Your task to perform on an android device: What's on my calendar tomorrow? Image 0: 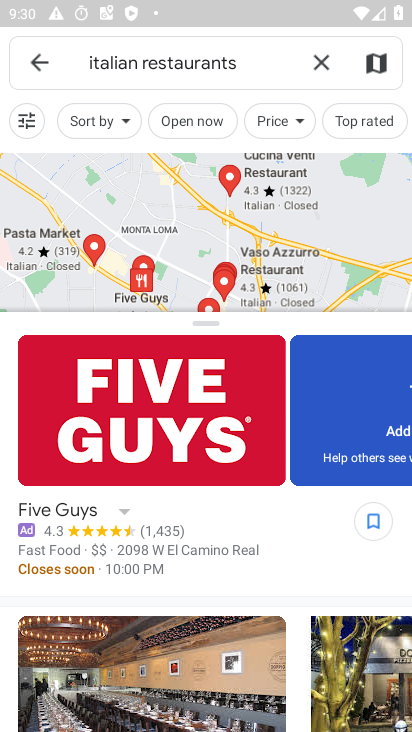
Step 0: press home button
Your task to perform on an android device: What's on my calendar tomorrow? Image 1: 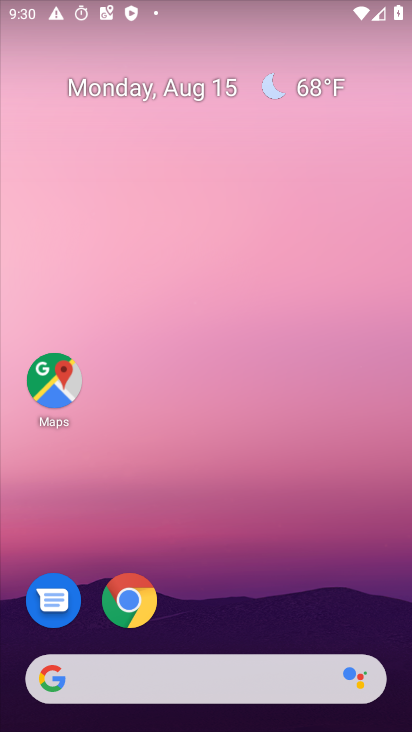
Step 1: drag from (230, 647) to (199, 49)
Your task to perform on an android device: What's on my calendar tomorrow? Image 2: 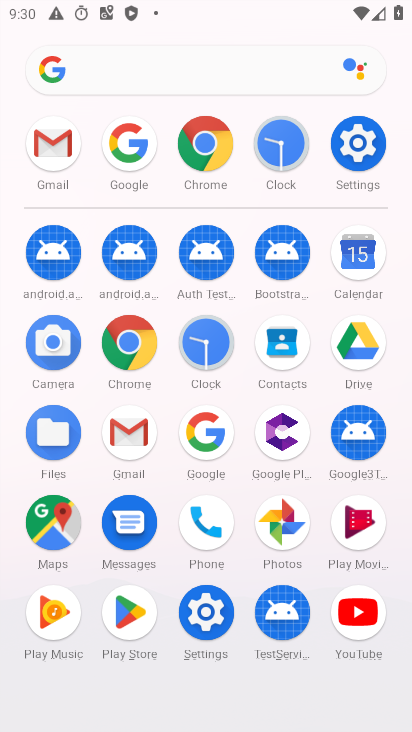
Step 2: click (356, 258)
Your task to perform on an android device: What's on my calendar tomorrow? Image 3: 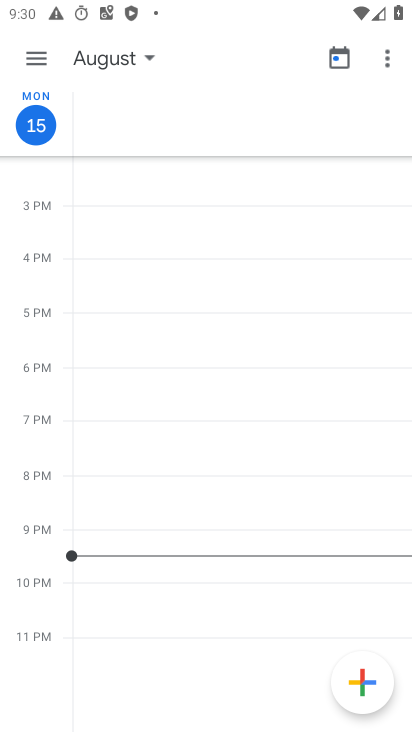
Step 3: click (147, 56)
Your task to perform on an android device: What's on my calendar tomorrow? Image 4: 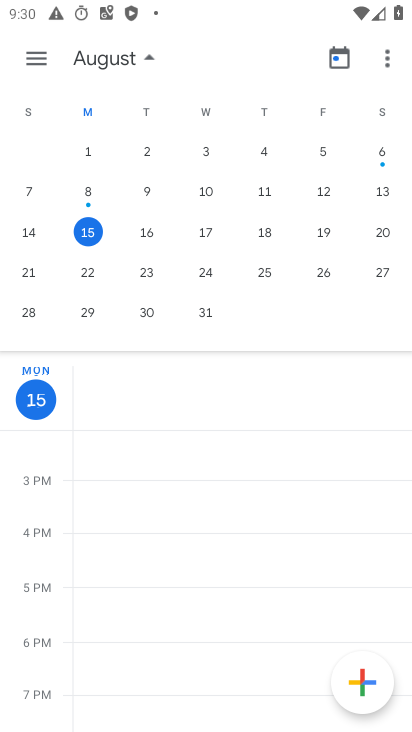
Step 4: click (144, 228)
Your task to perform on an android device: What's on my calendar tomorrow? Image 5: 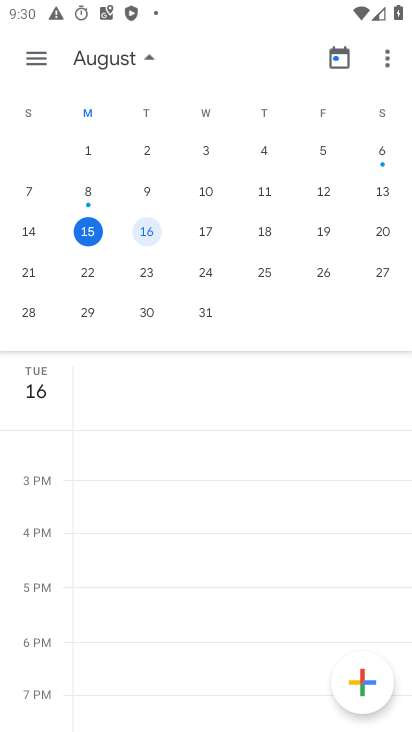
Step 5: click (144, 228)
Your task to perform on an android device: What's on my calendar tomorrow? Image 6: 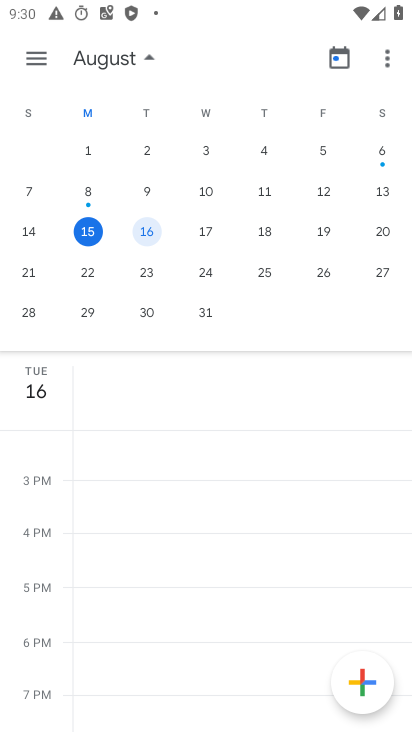
Step 6: click (144, 228)
Your task to perform on an android device: What's on my calendar tomorrow? Image 7: 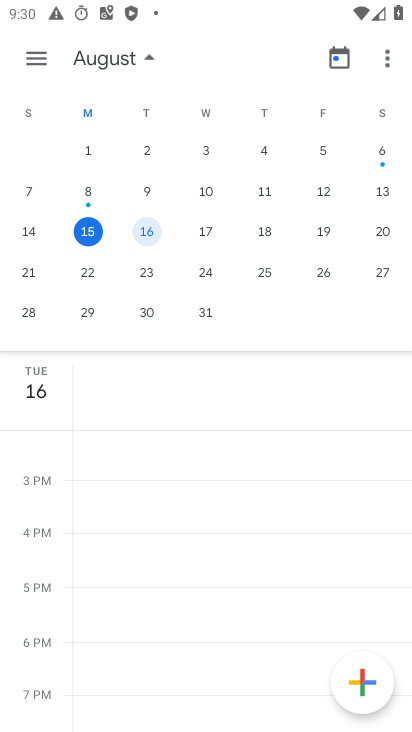
Step 7: click (144, 228)
Your task to perform on an android device: What's on my calendar tomorrow? Image 8: 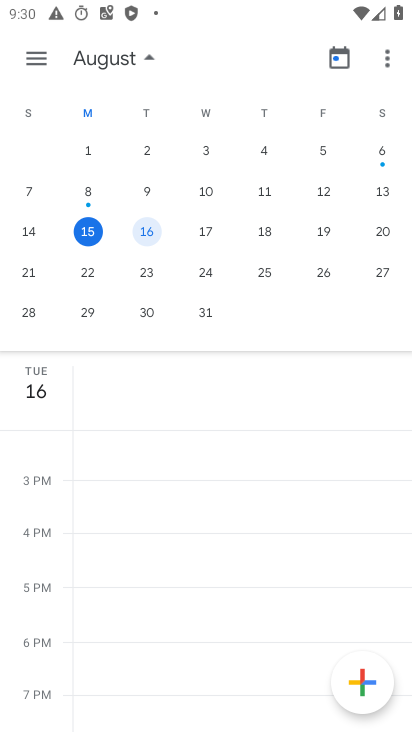
Step 8: click (144, 228)
Your task to perform on an android device: What's on my calendar tomorrow? Image 9: 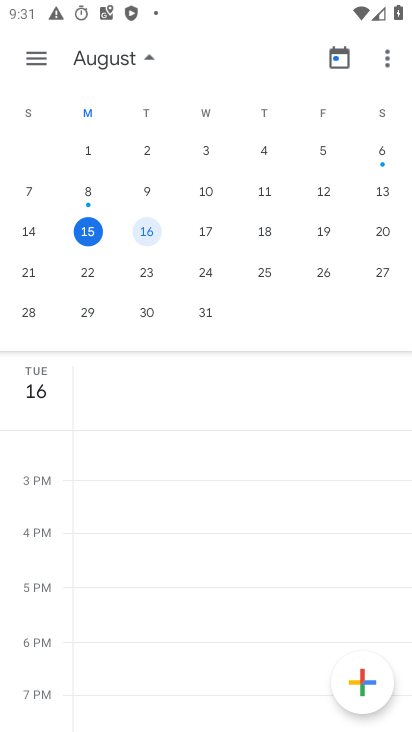
Step 9: click (146, 230)
Your task to perform on an android device: What's on my calendar tomorrow? Image 10: 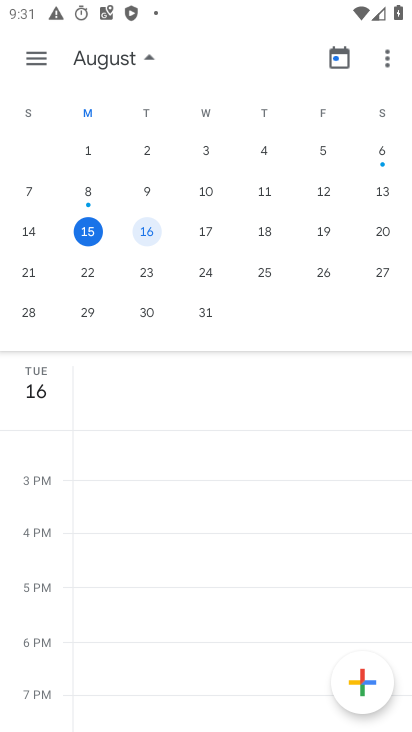
Step 10: click (146, 230)
Your task to perform on an android device: What's on my calendar tomorrow? Image 11: 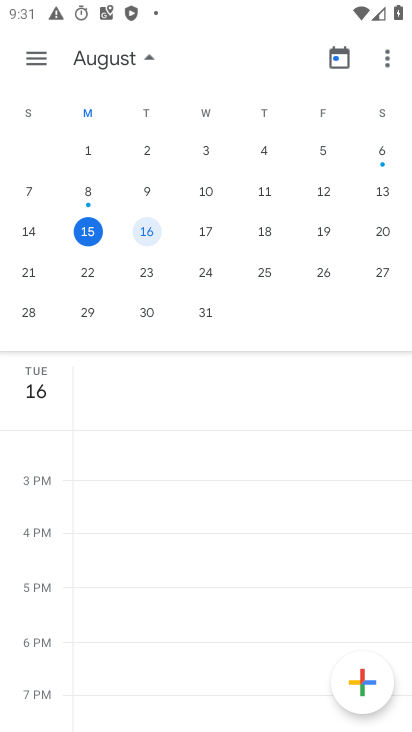
Step 11: click (146, 230)
Your task to perform on an android device: What's on my calendar tomorrow? Image 12: 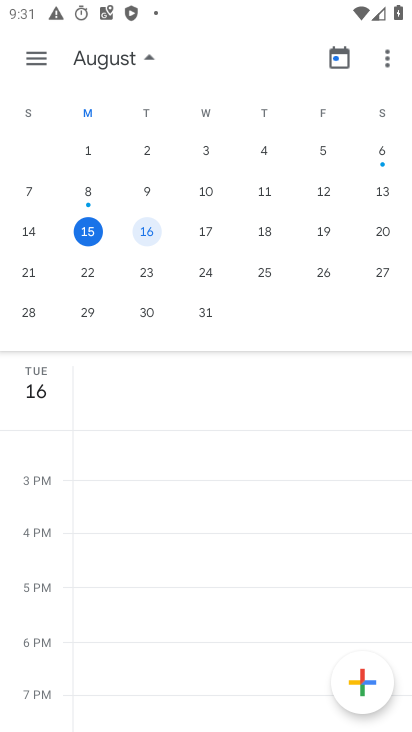
Step 12: click (146, 230)
Your task to perform on an android device: What's on my calendar tomorrow? Image 13: 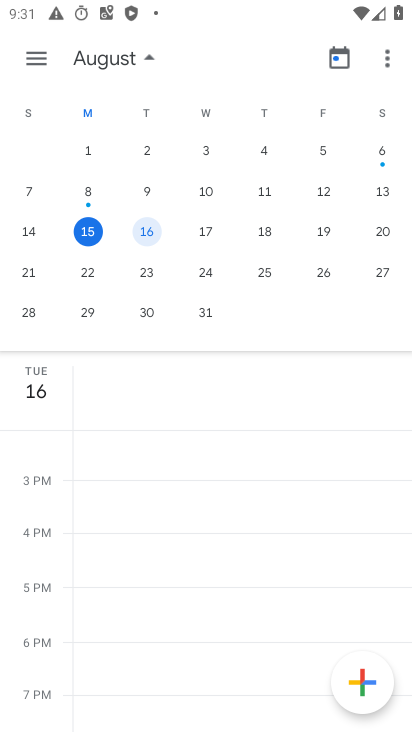
Step 13: task complete